Your task to perform on an android device: toggle priority inbox in the gmail app Image 0: 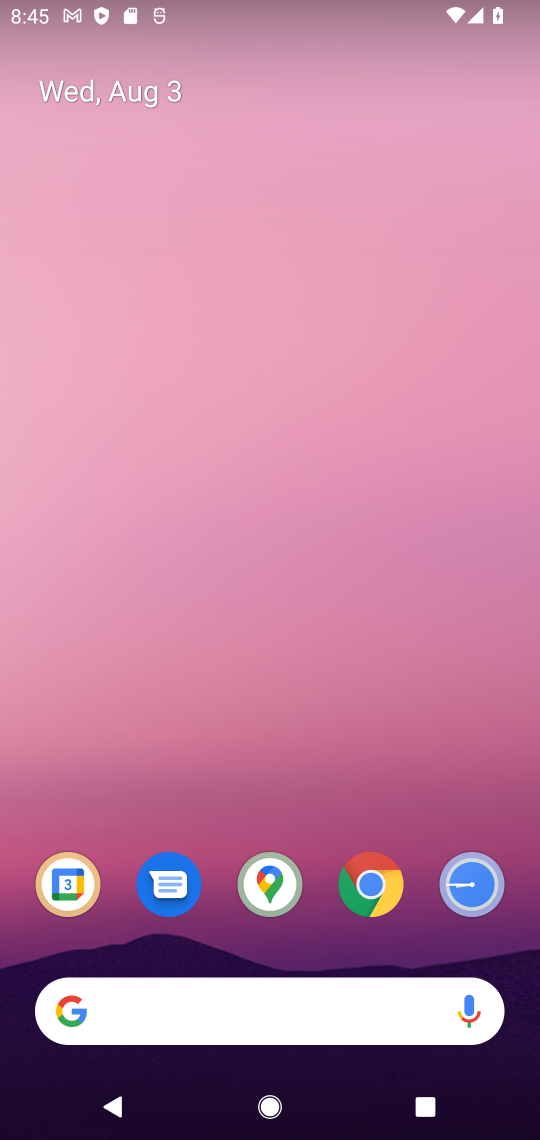
Step 0: drag from (64, 1016) to (276, 86)
Your task to perform on an android device: toggle priority inbox in the gmail app Image 1: 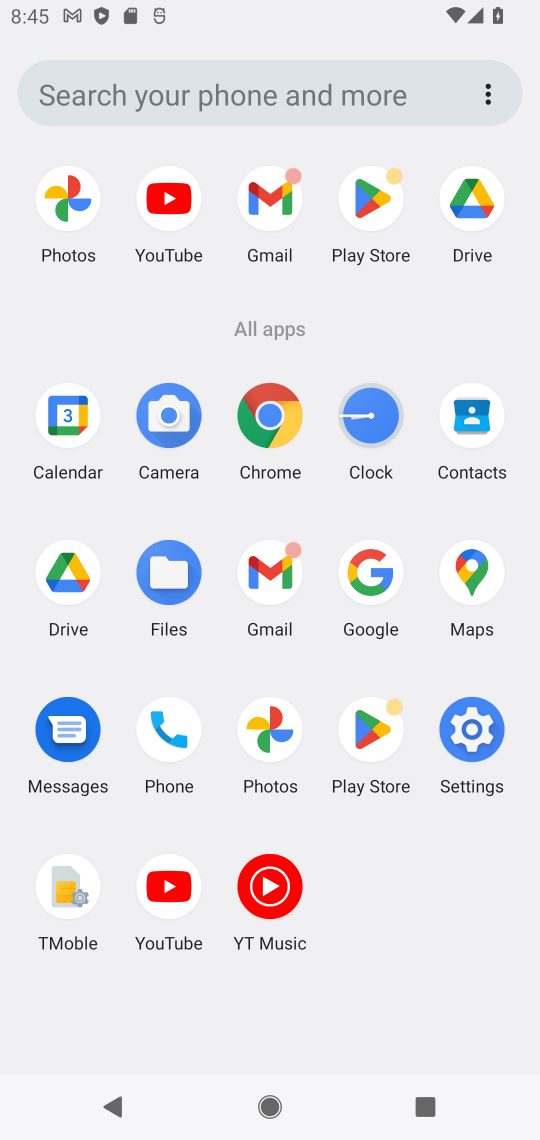
Step 1: click (273, 588)
Your task to perform on an android device: toggle priority inbox in the gmail app Image 2: 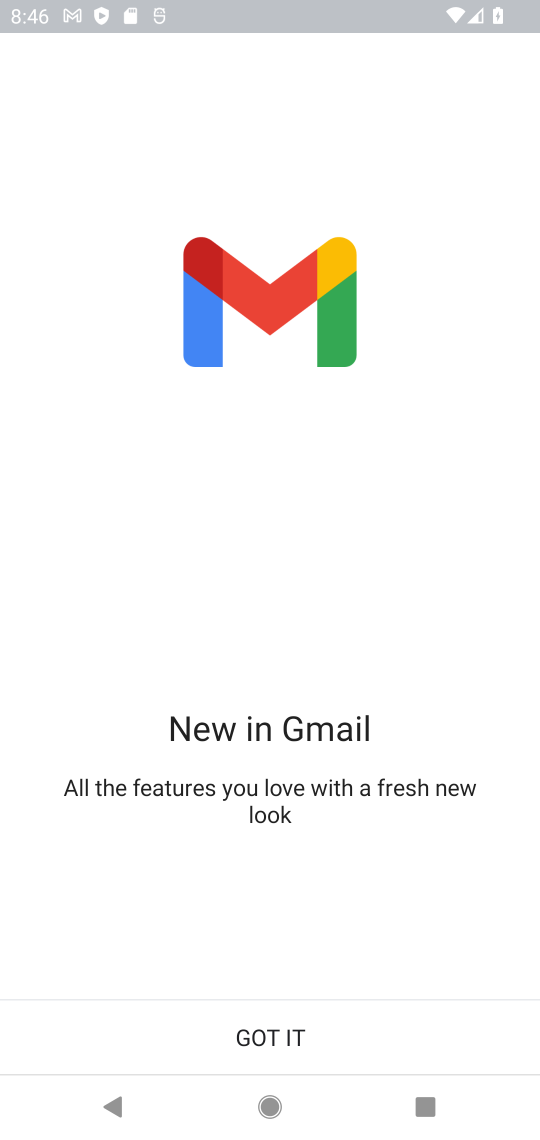
Step 2: click (259, 1049)
Your task to perform on an android device: toggle priority inbox in the gmail app Image 3: 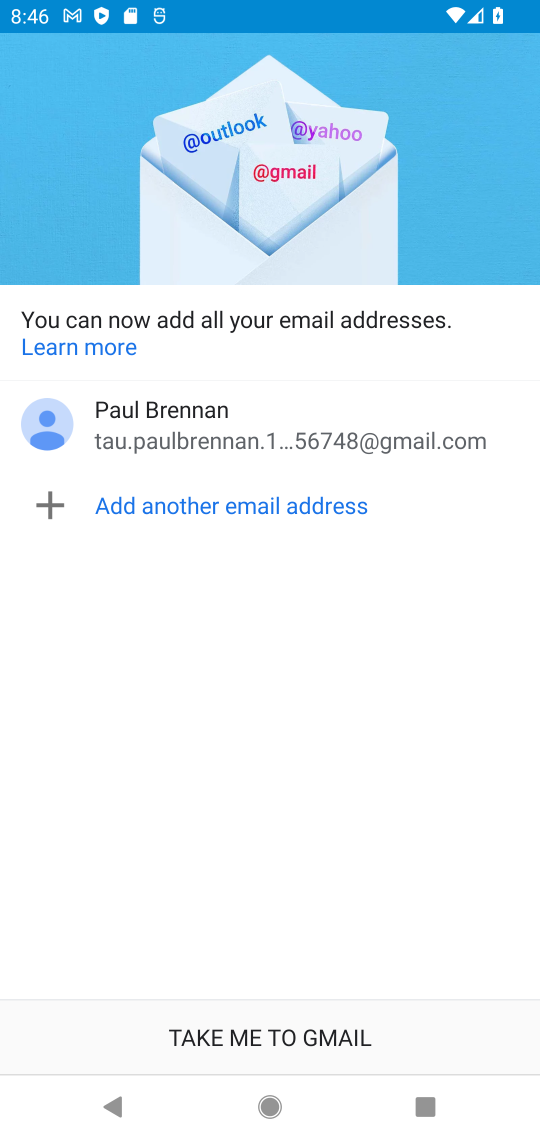
Step 3: click (259, 1027)
Your task to perform on an android device: toggle priority inbox in the gmail app Image 4: 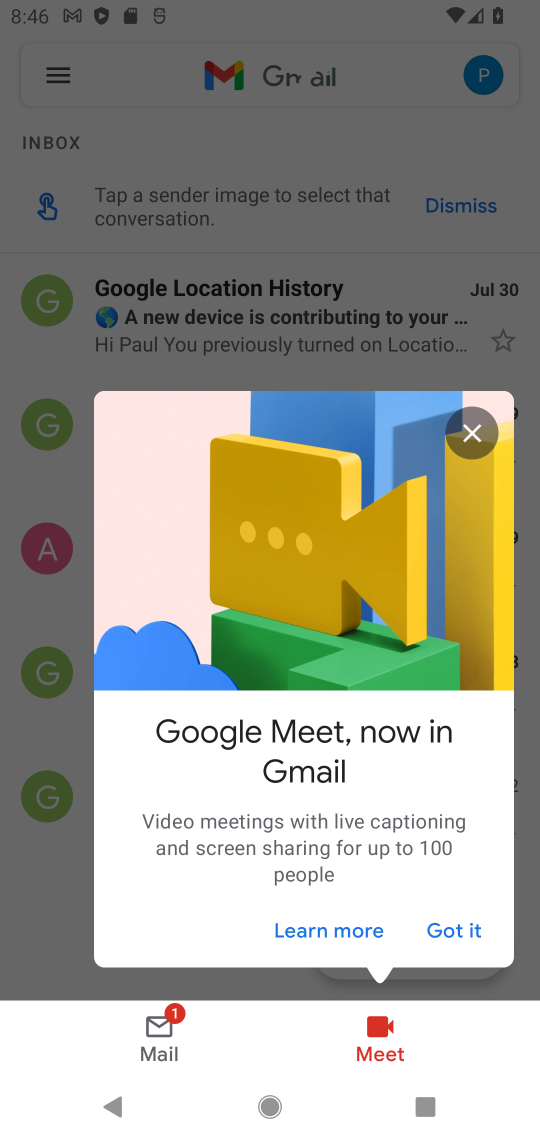
Step 4: click (449, 898)
Your task to perform on an android device: toggle priority inbox in the gmail app Image 5: 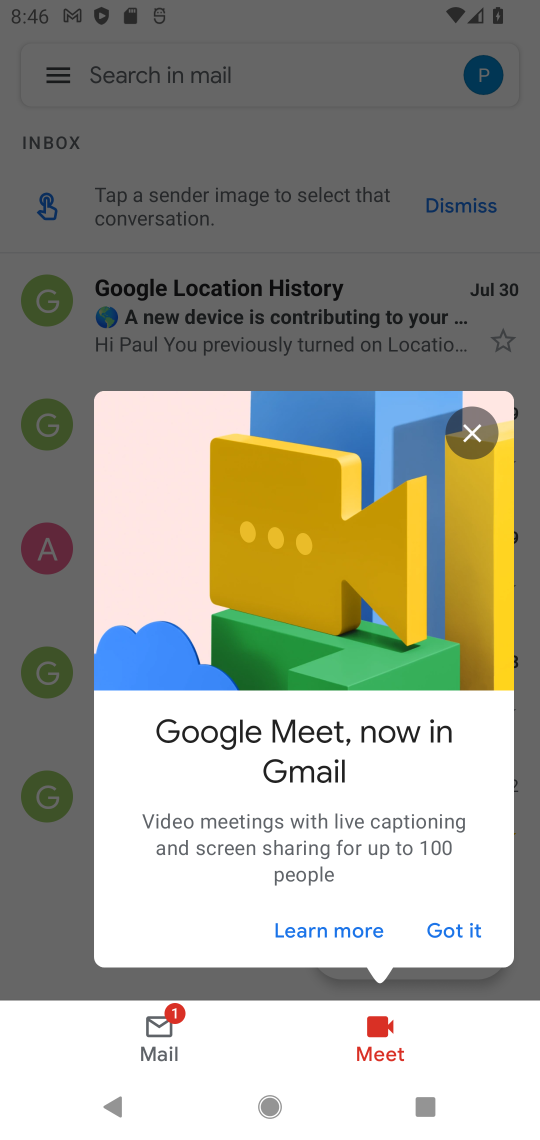
Step 5: click (446, 924)
Your task to perform on an android device: toggle priority inbox in the gmail app Image 6: 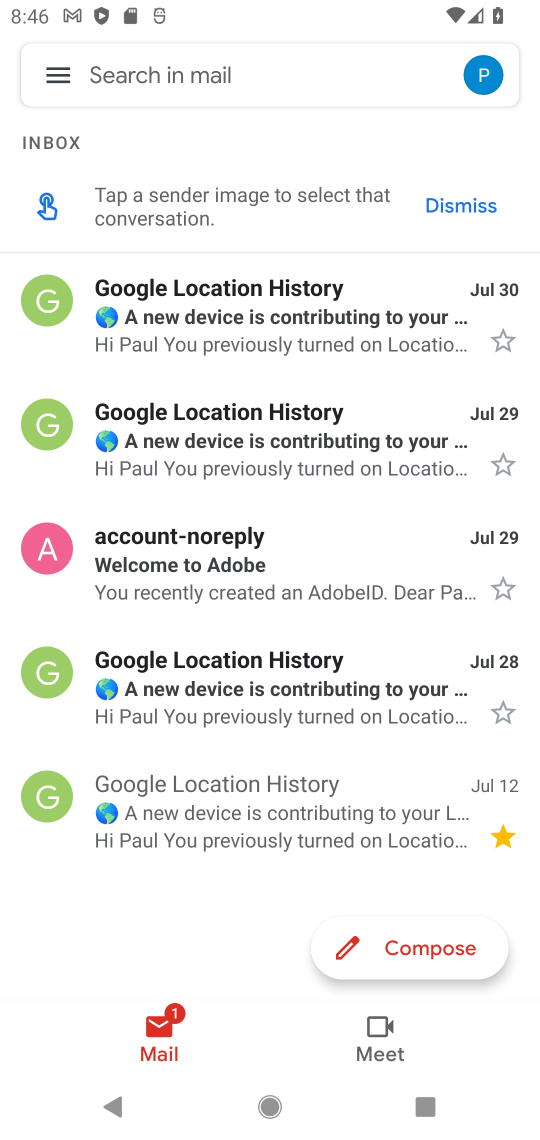
Step 6: click (47, 75)
Your task to perform on an android device: toggle priority inbox in the gmail app Image 7: 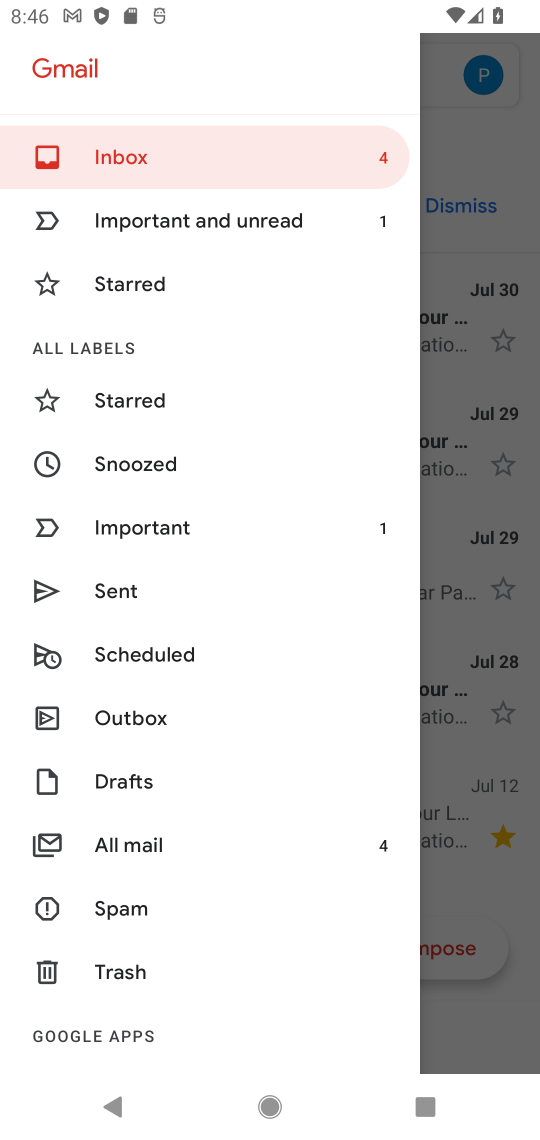
Step 7: drag from (191, 856) to (228, 507)
Your task to perform on an android device: toggle priority inbox in the gmail app Image 8: 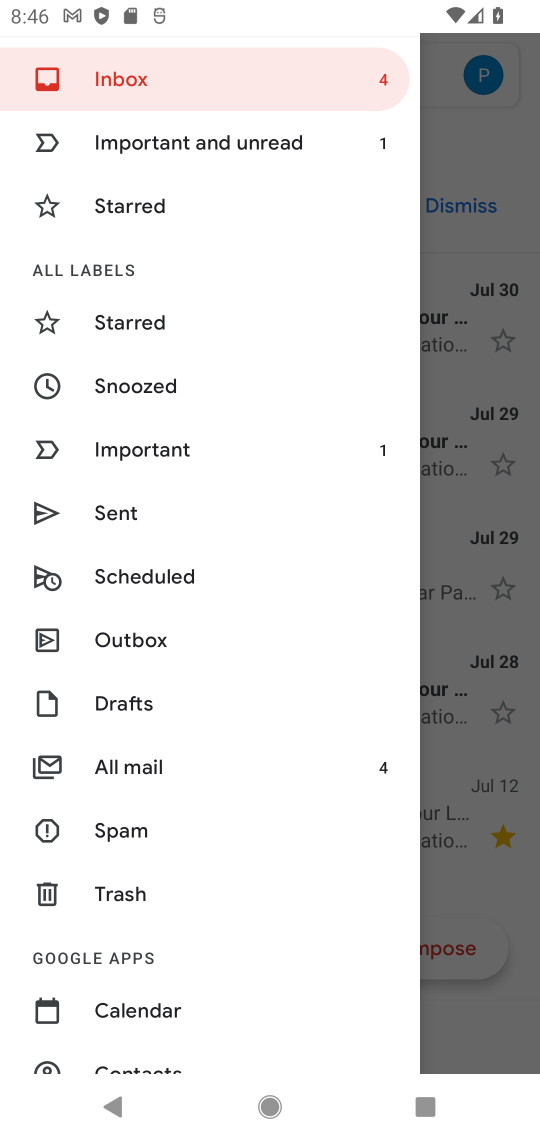
Step 8: drag from (202, 956) to (325, 381)
Your task to perform on an android device: toggle priority inbox in the gmail app Image 9: 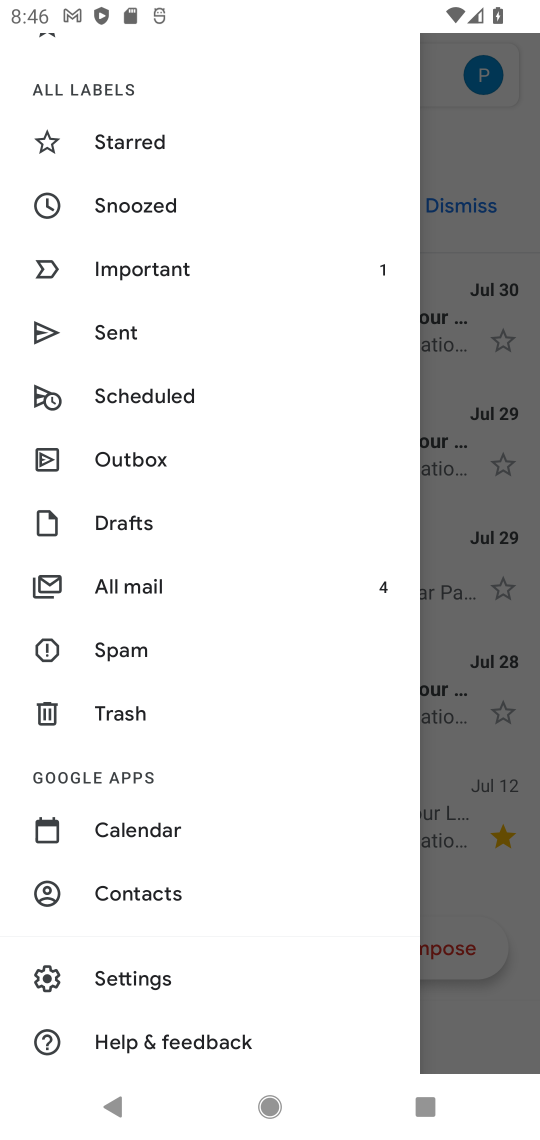
Step 9: click (150, 984)
Your task to perform on an android device: toggle priority inbox in the gmail app Image 10: 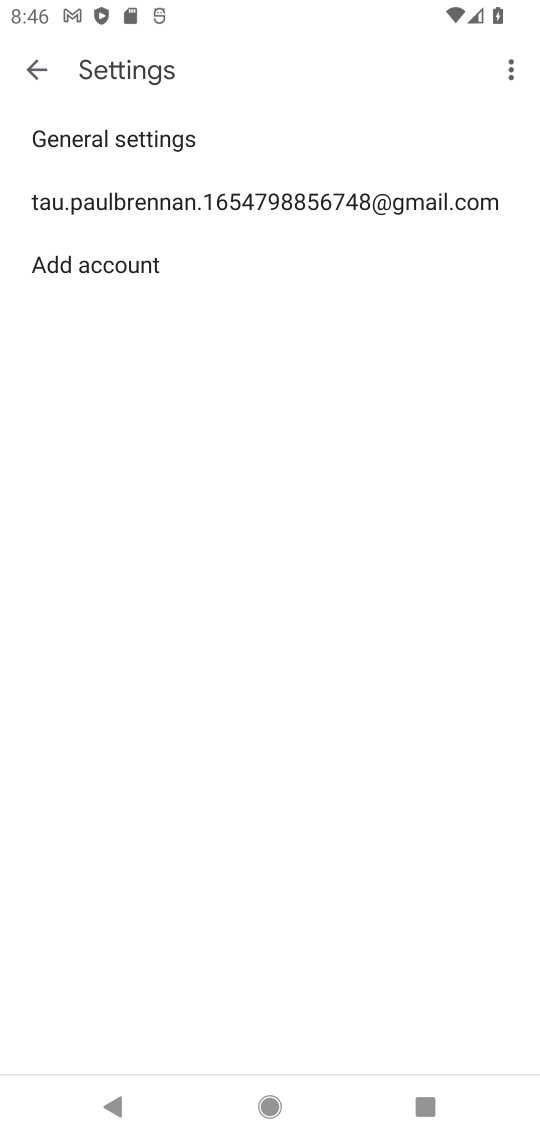
Step 10: click (99, 189)
Your task to perform on an android device: toggle priority inbox in the gmail app Image 11: 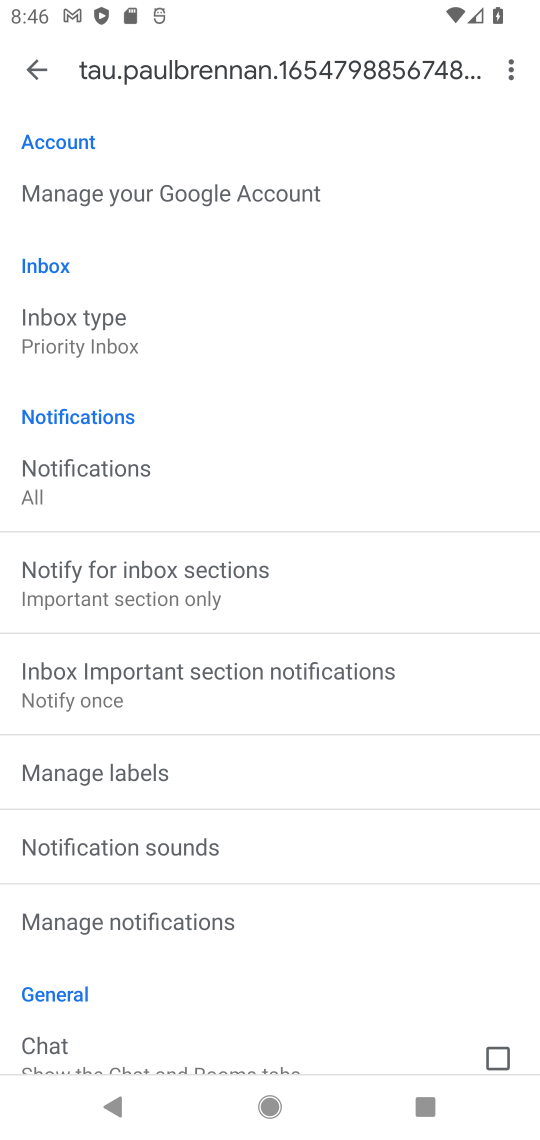
Step 11: task complete